Your task to perform on an android device: Open maps Image 0: 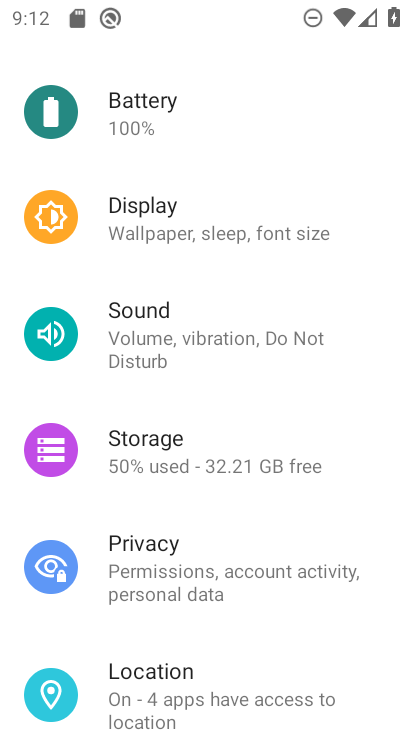
Step 0: press home button
Your task to perform on an android device: Open maps Image 1: 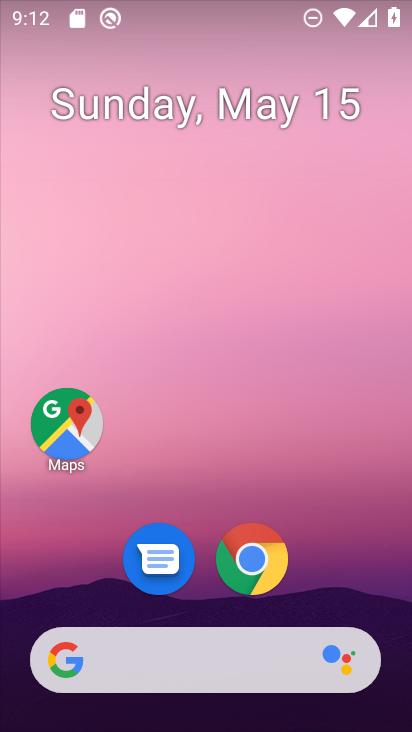
Step 1: click (51, 423)
Your task to perform on an android device: Open maps Image 2: 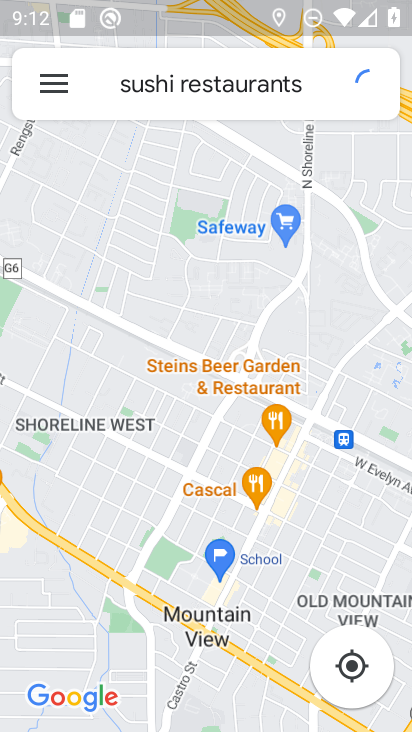
Step 2: task complete